Your task to perform on an android device: turn pop-ups off in chrome Image 0: 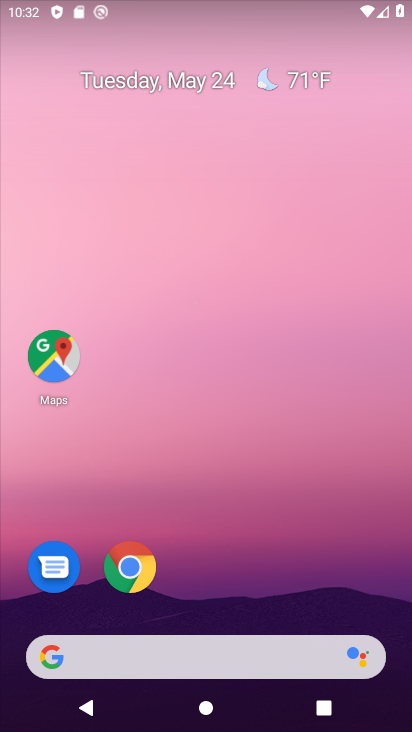
Step 0: click (379, 329)
Your task to perform on an android device: turn pop-ups off in chrome Image 1: 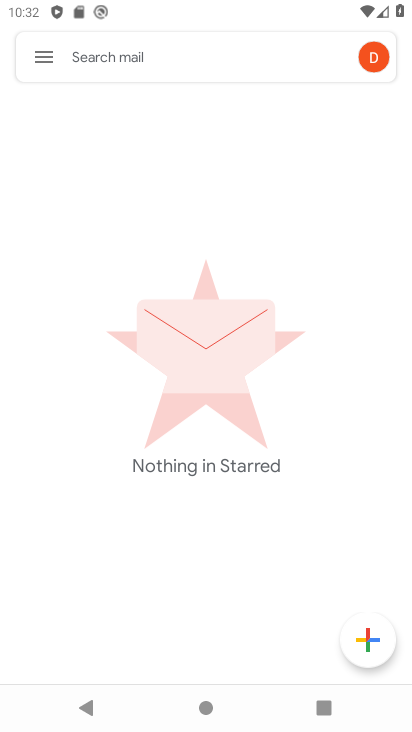
Step 1: press home button
Your task to perform on an android device: turn pop-ups off in chrome Image 2: 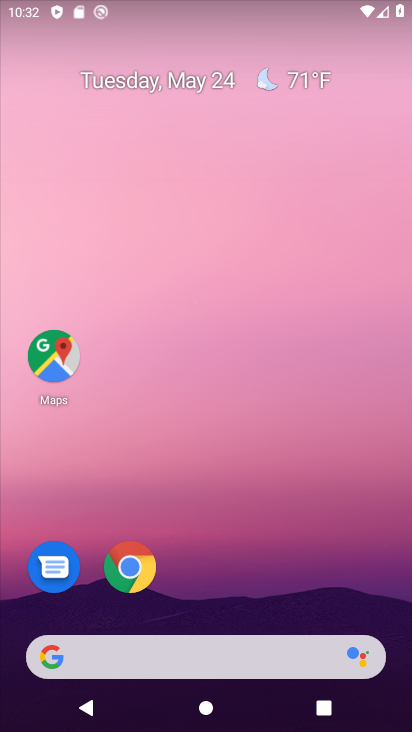
Step 2: drag from (390, 652) to (320, 271)
Your task to perform on an android device: turn pop-ups off in chrome Image 3: 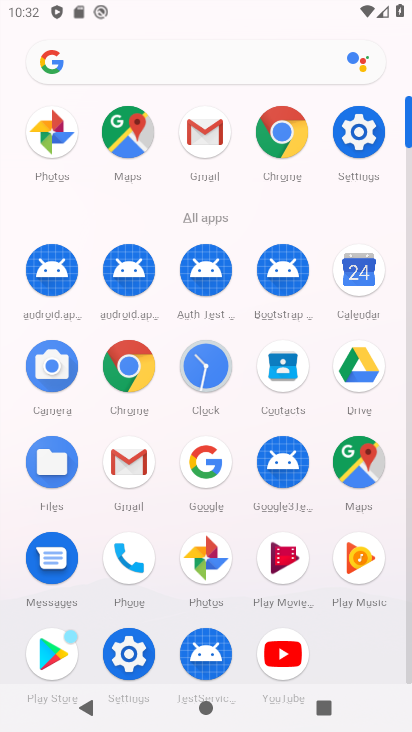
Step 3: click (290, 127)
Your task to perform on an android device: turn pop-ups off in chrome Image 4: 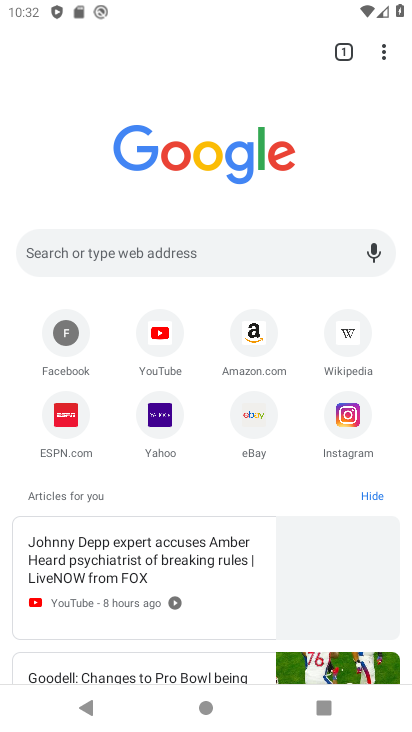
Step 4: click (381, 40)
Your task to perform on an android device: turn pop-ups off in chrome Image 5: 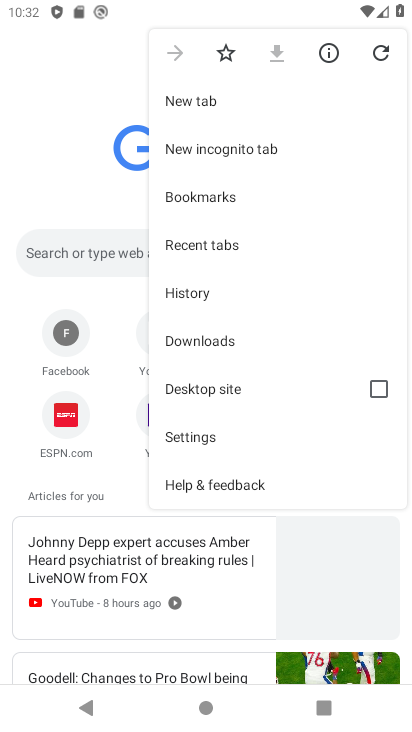
Step 5: click (189, 439)
Your task to perform on an android device: turn pop-ups off in chrome Image 6: 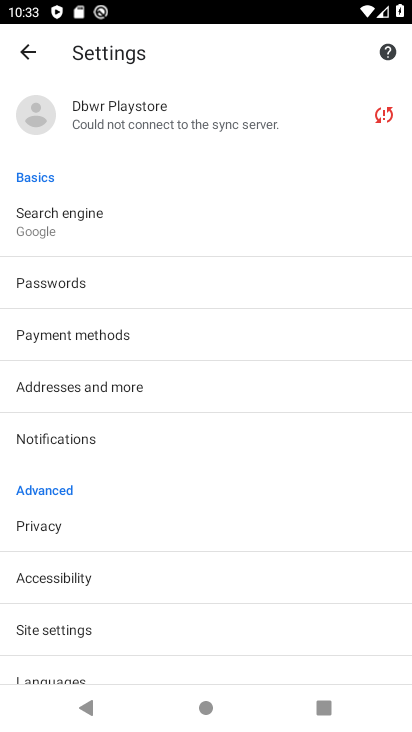
Step 6: drag from (214, 641) to (247, 326)
Your task to perform on an android device: turn pop-ups off in chrome Image 7: 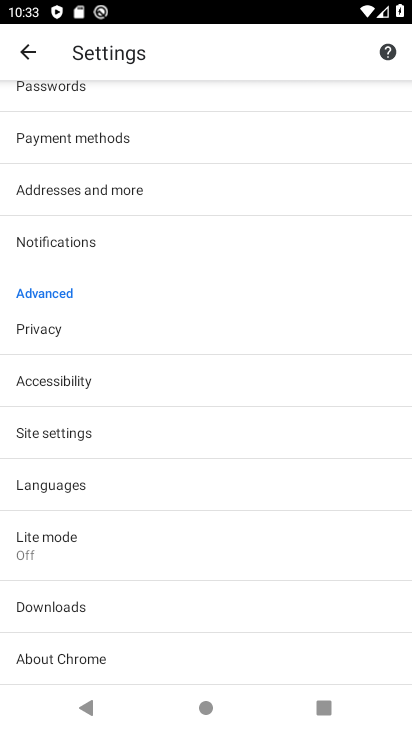
Step 7: click (54, 436)
Your task to perform on an android device: turn pop-ups off in chrome Image 8: 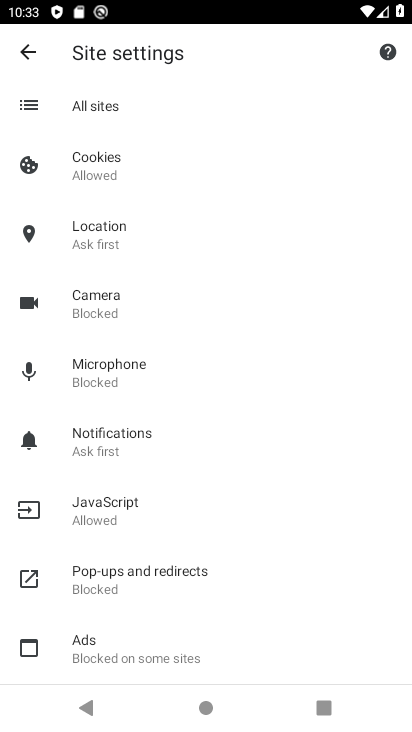
Step 8: click (95, 579)
Your task to perform on an android device: turn pop-ups off in chrome Image 9: 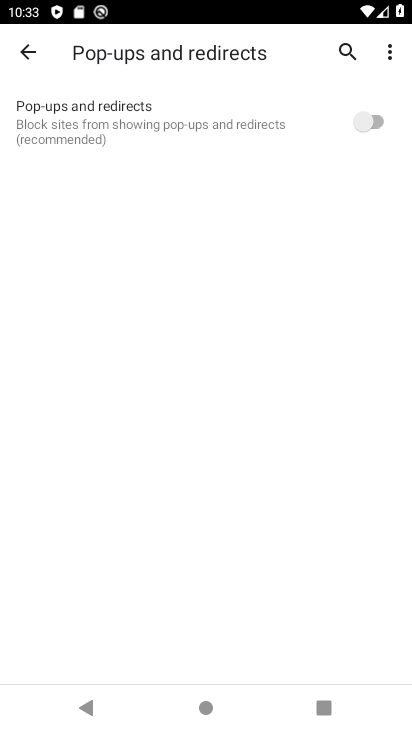
Step 9: task complete